Your task to perform on an android device: Go to Android settings Image 0: 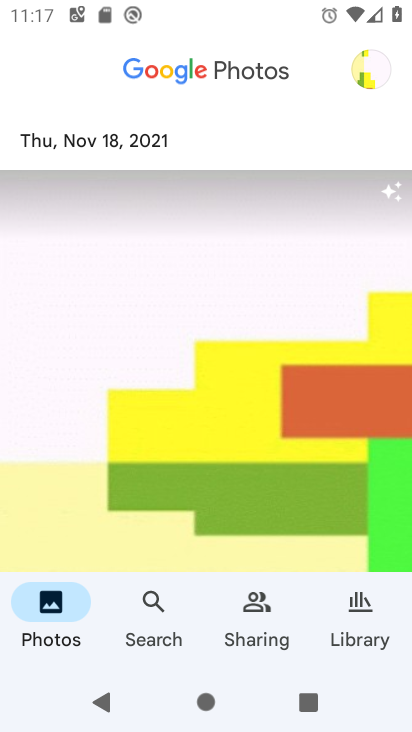
Step 0: press home button
Your task to perform on an android device: Go to Android settings Image 1: 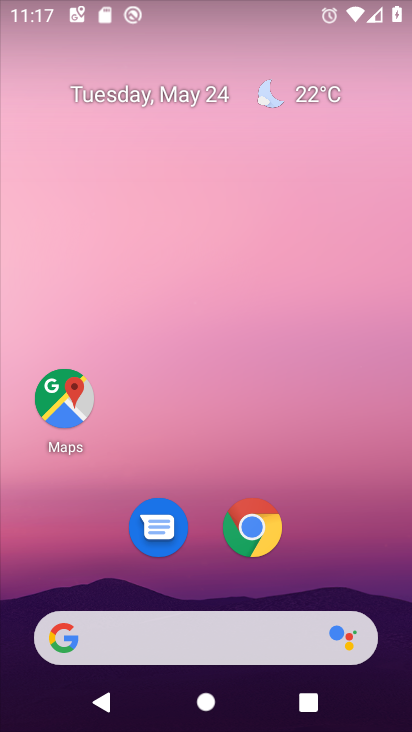
Step 1: drag from (214, 661) to (314, 318)
Your task to perform on an android device: Go to Android settings Image 2: 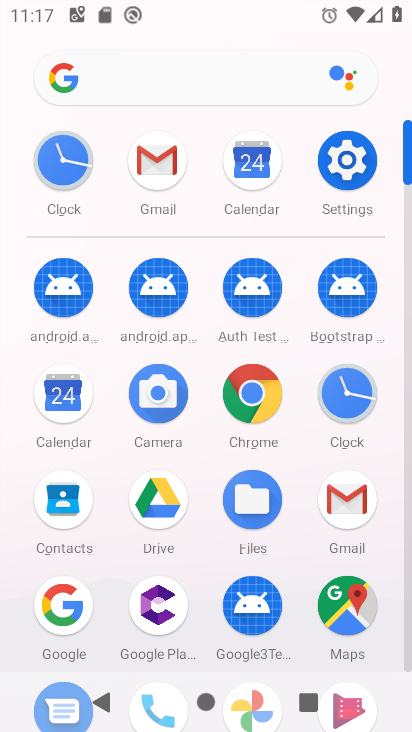
Step 2: click (338, 167)
Your task to perform on an android device: Go to Android settings Image 3: 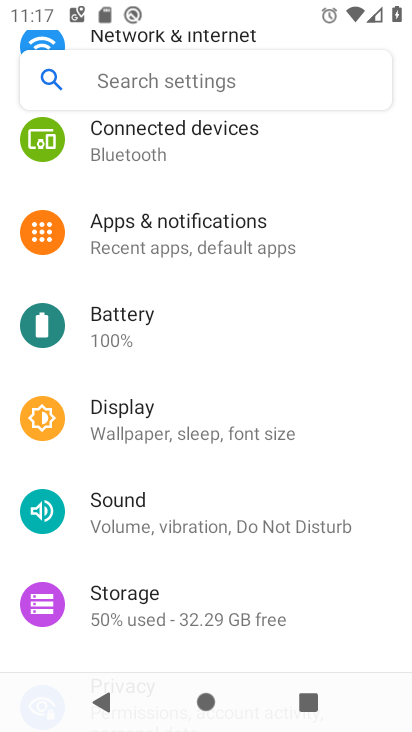
Step 3: task complete